Your task to perform on an android device: allow notifications from all sites in the chrome app Image 0: 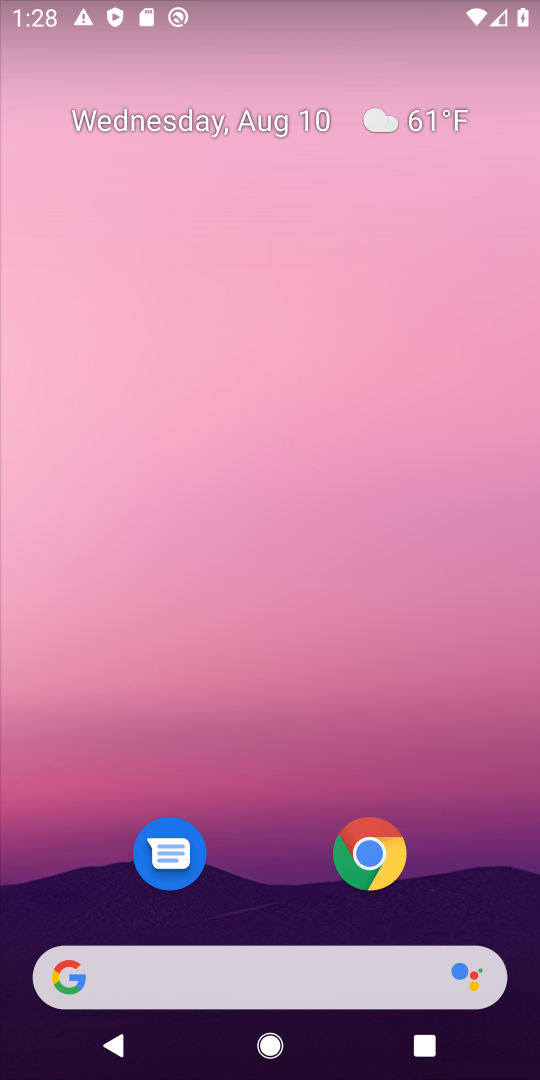
Step 0: click (23, 365)
Your task to perform on an android device: allow notifications from all sites in the chrome app Image 1: 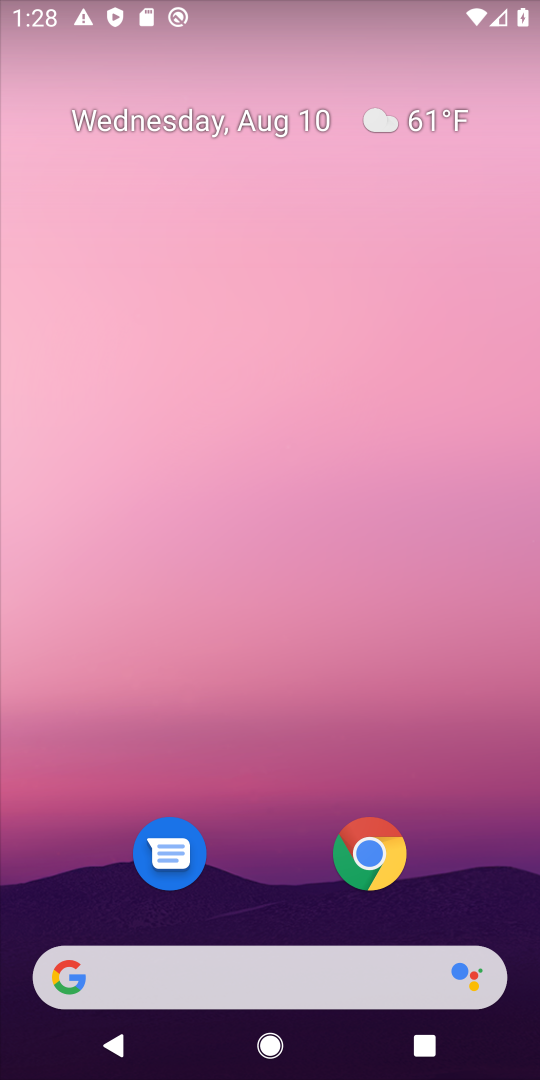
Step 1: click (384, 859)
Your task to perform on an android device: allow notifications from all sites in the chrome app Image 2: 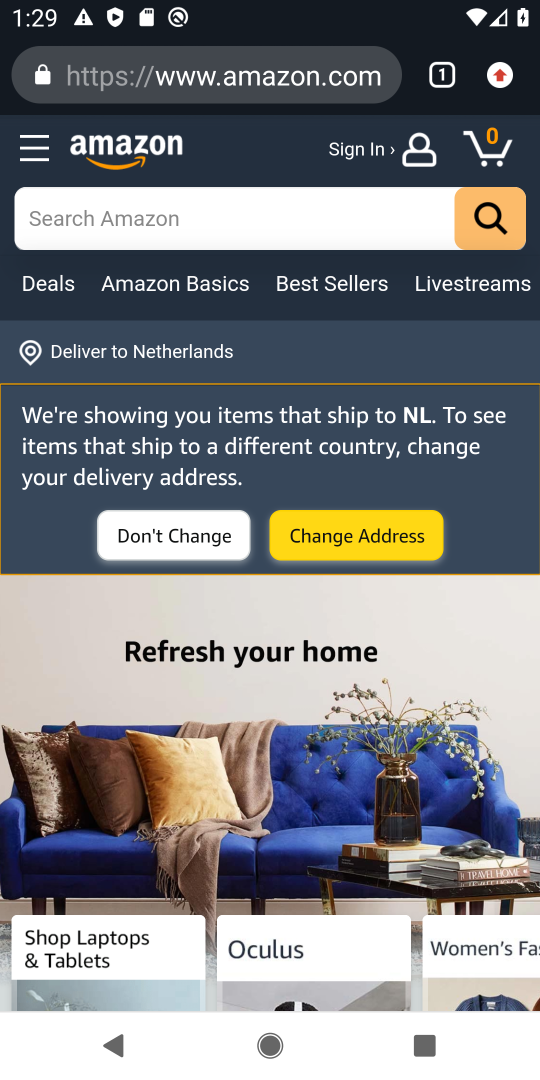
Step 2: click (495, 80)
Your task to perform on an android device: allow notifications from all sites in the chrome app Image 3: 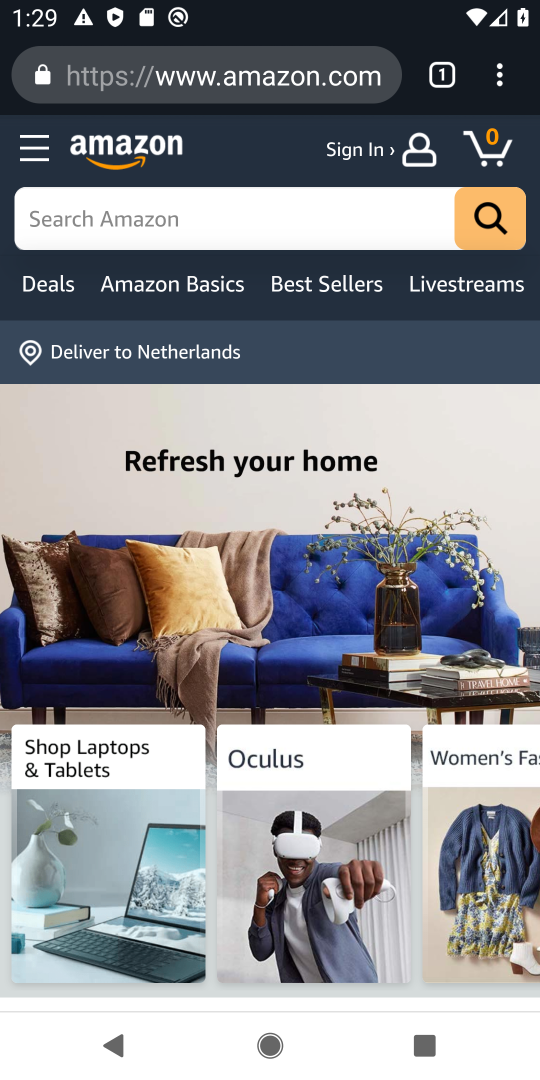
Step 3: task complete